Your task to perform on an android device: change the clock display to digital Image 0: 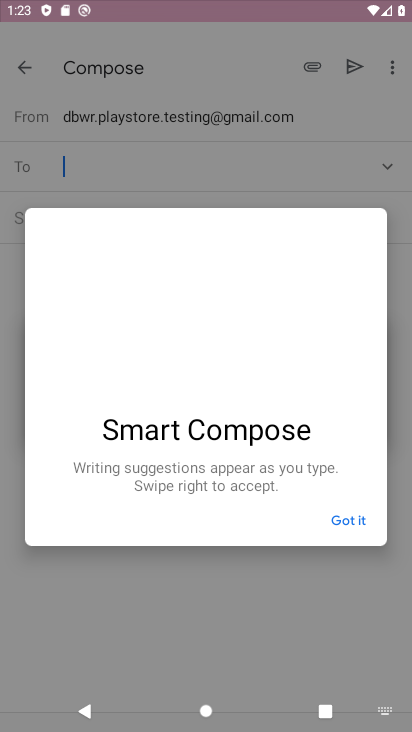
Step 0: click (206, 46)
Your task to perform on an android device: change the clock display to digital Image 1: 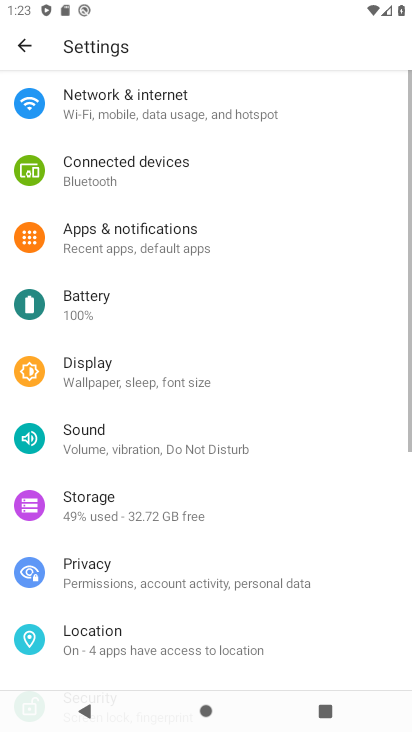
Step 1: press home button
Your task to perform on an android device: change the clock display to digital Image 2: 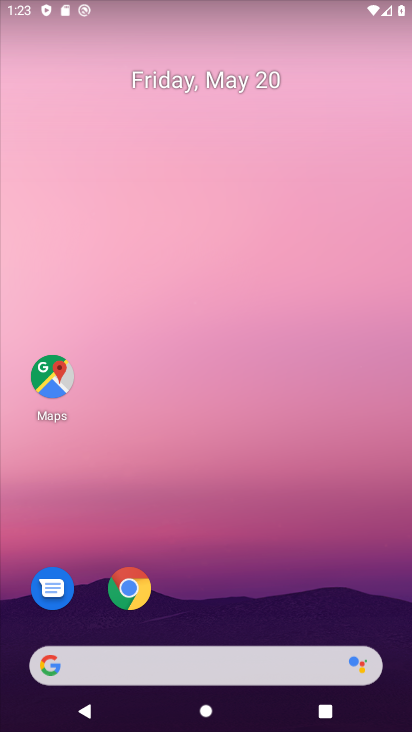
Step 2: drag from (199, 655) to (176, 285)
Your task to perform on an android device: change the clock display to digital Image 3: 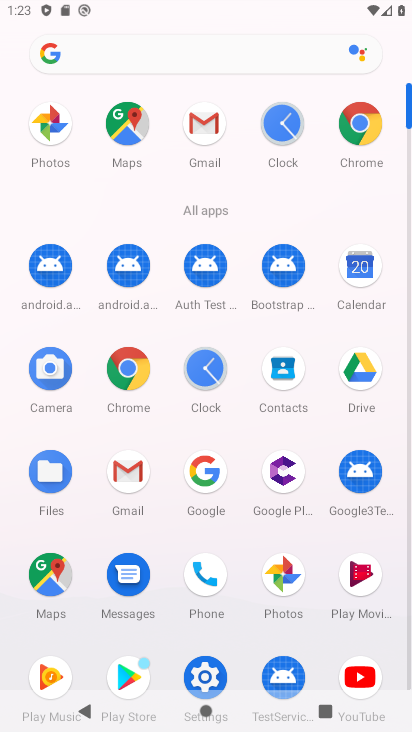
Step 3: click (210, 382)
Your task to perform on an android device: change the clock display to digital Image 4: 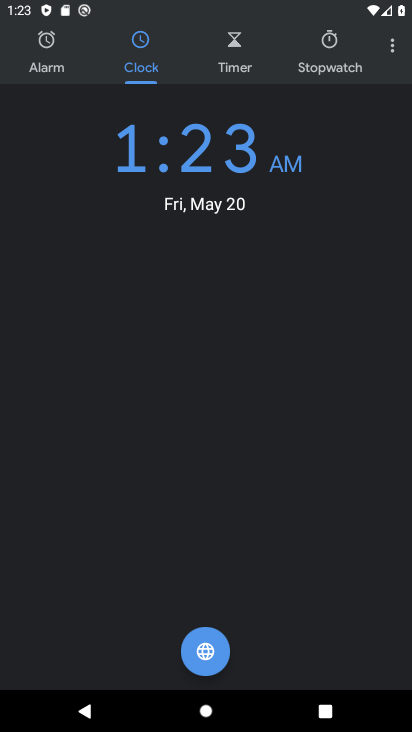
Step 4: click (389, 51)
Your task to perform on an android device: change the clock display to digital Image 5: 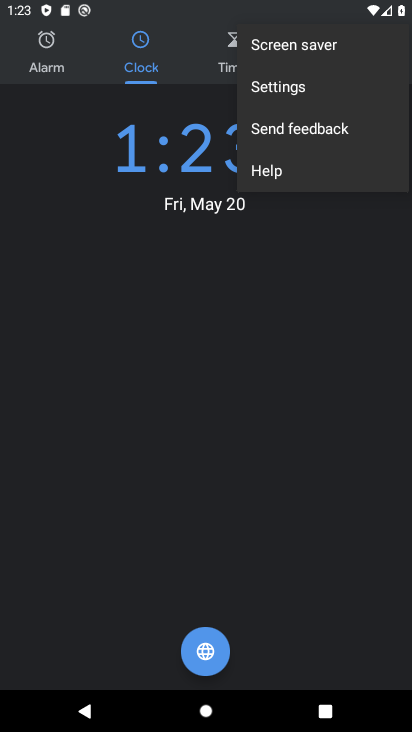
Step 5: click (290, 87)
Your task to perform on an android device: change the clock display to digital Image 6: 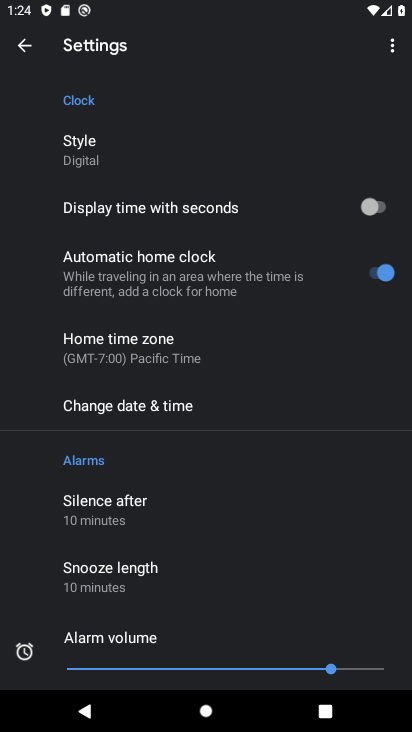
Step 6: click (170, 140)
Your task to perform on an android device: change the clock display to digital Image 7: 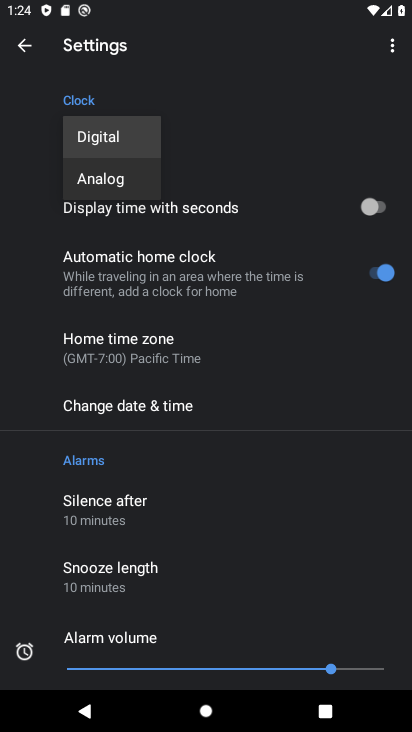
Step 7: click (130, 135)
Your task to perform on an android device: change the clock display to digital Image 8: 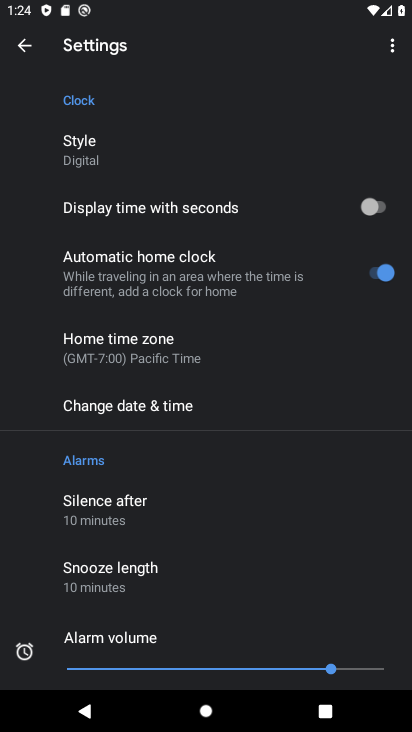
Step 8: task complete